Your task to perform on an android device: Open notification settings Image 0: 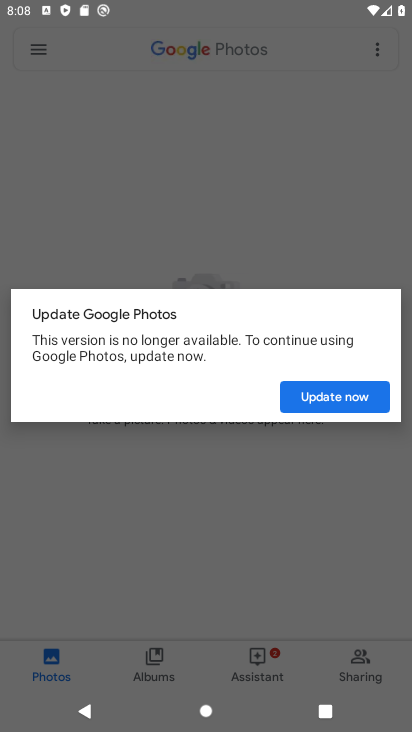
Step 0: press home button
Your task to perform on an android device: Open notification settings Image 1: 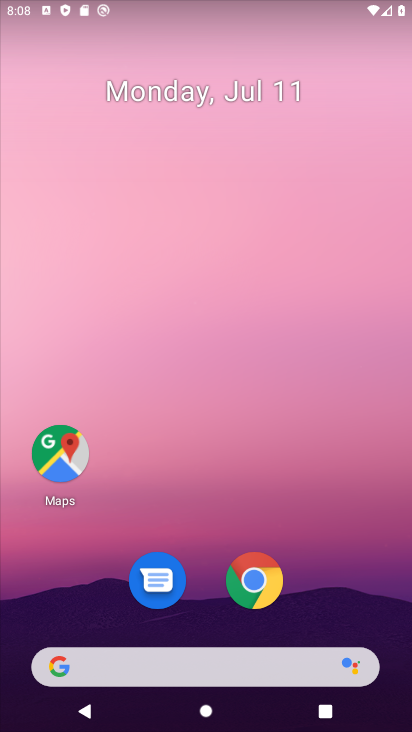
Step 1: drag from (376, 645) to (208, 95)
Your task to perform on an android device: Open notification settings Image 2: 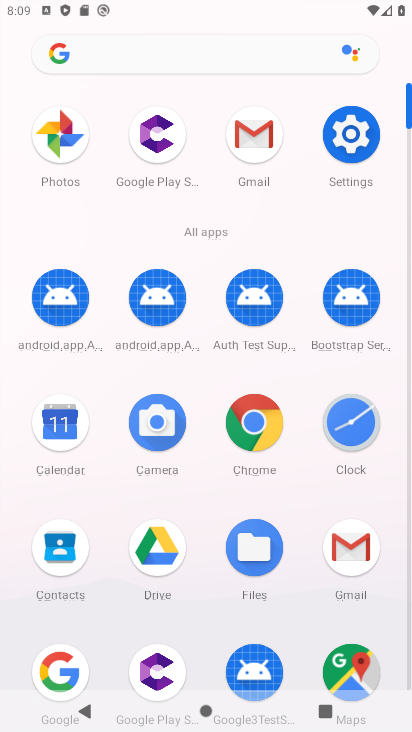
Step 2: click (349, 127)
Your task to perform on an android device: Open notification settings Image 3: 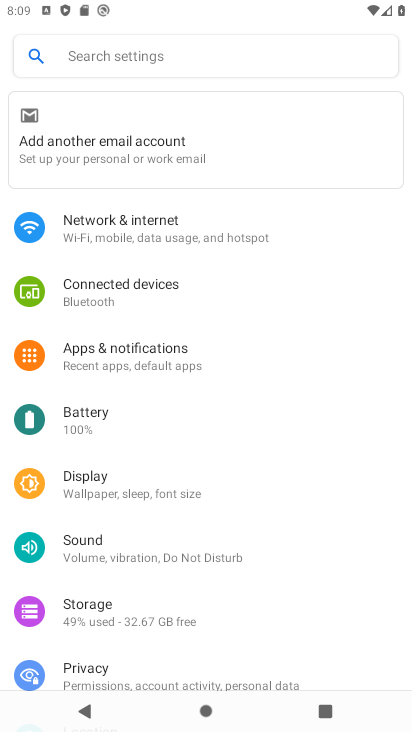
Step 3: click (108, 359)
Your task to perform on an android device: Open notification settings Image 4: 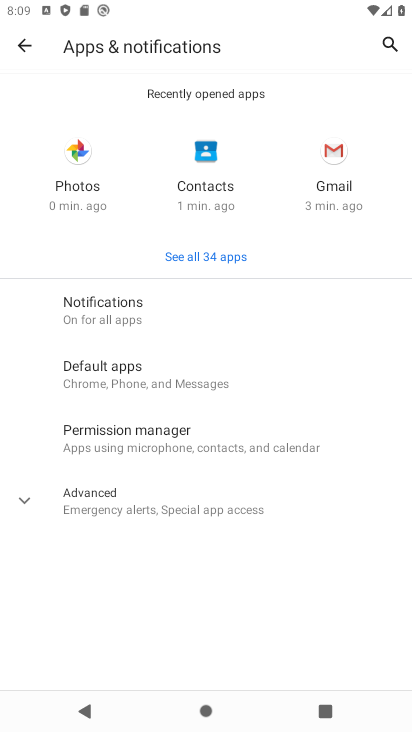
Step 4: click (117, 299)
Your task to perform on an android device: Open notification settings Image 5: 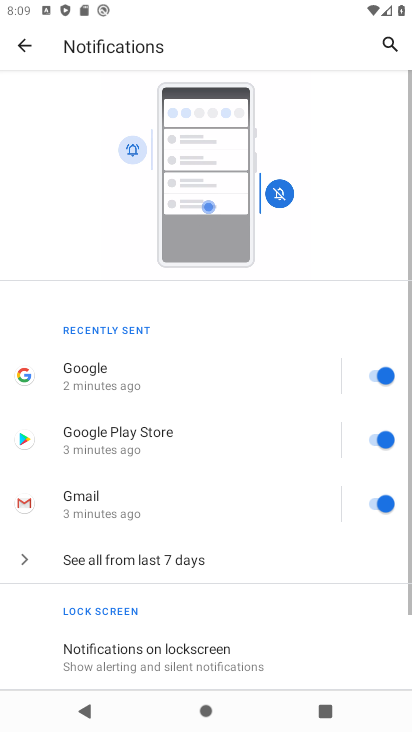
Step 5: task complete